Your task to perform on an android device: Empty the shopping cart on newegg. Add duracell triple a to the cart on newegg Image 0: 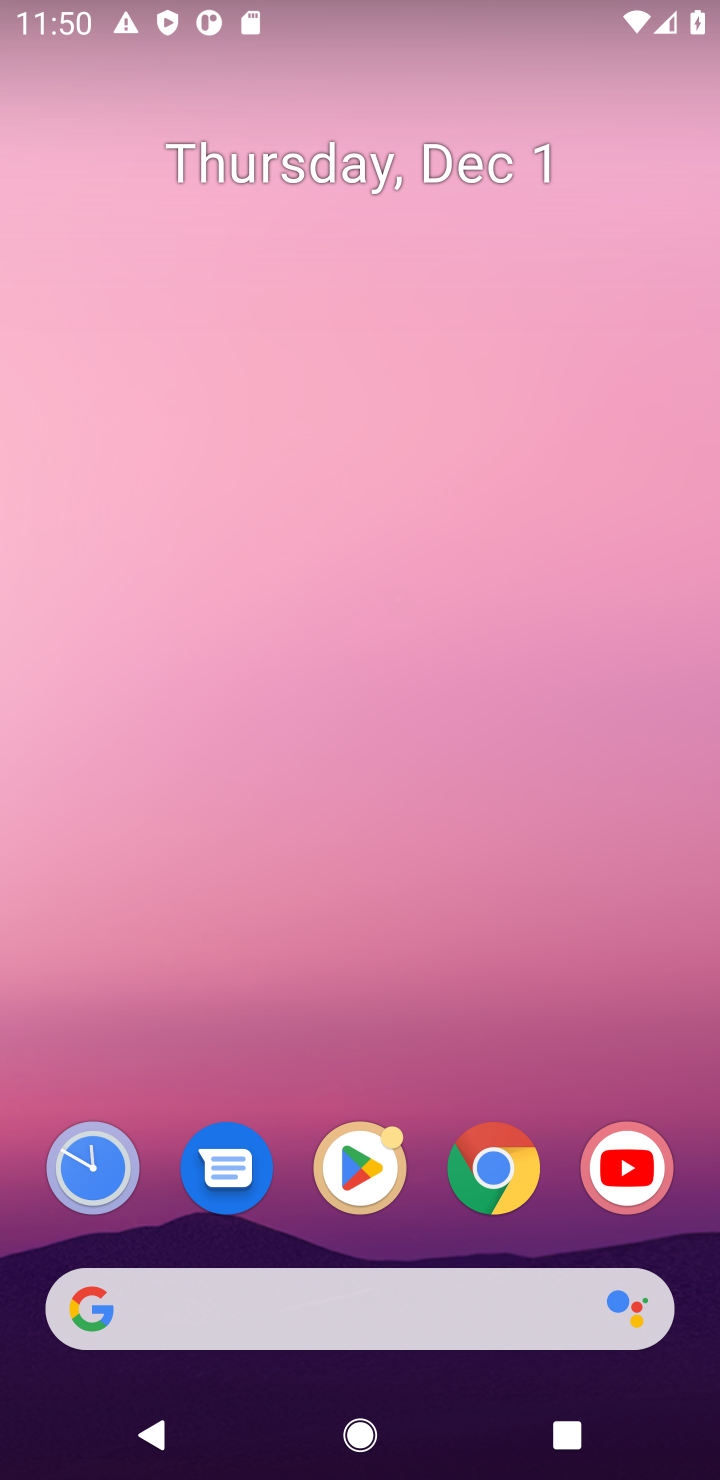
Step 0: click (500, 1181)
Your task to perform on an android device: Empty the shopping cart on newegg. Add duracell triple a to the cart on newegg Image 1: 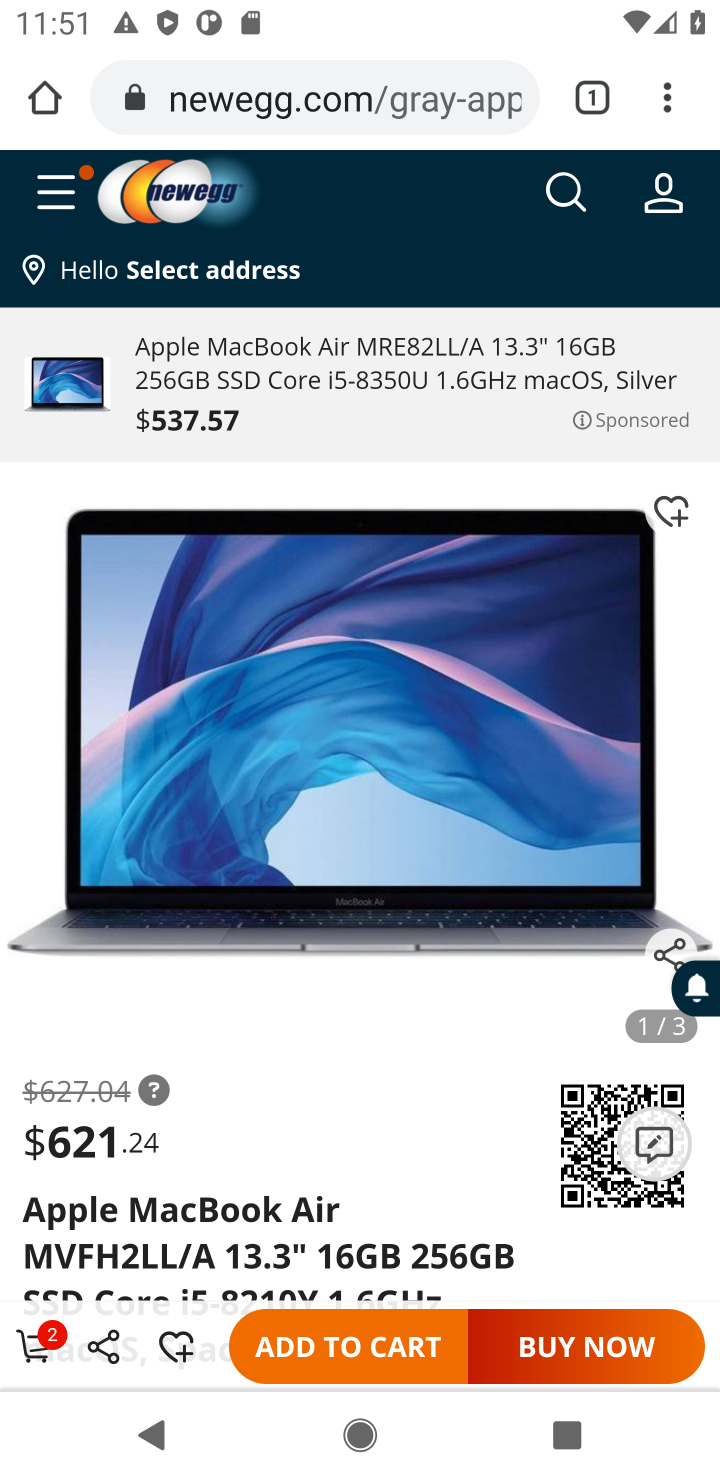
Step 1: click (306, 91)
Your task to perform on an android device: Empty the shopping cart on newegg. Add duracell triple a to the cart on newegg Image 2: 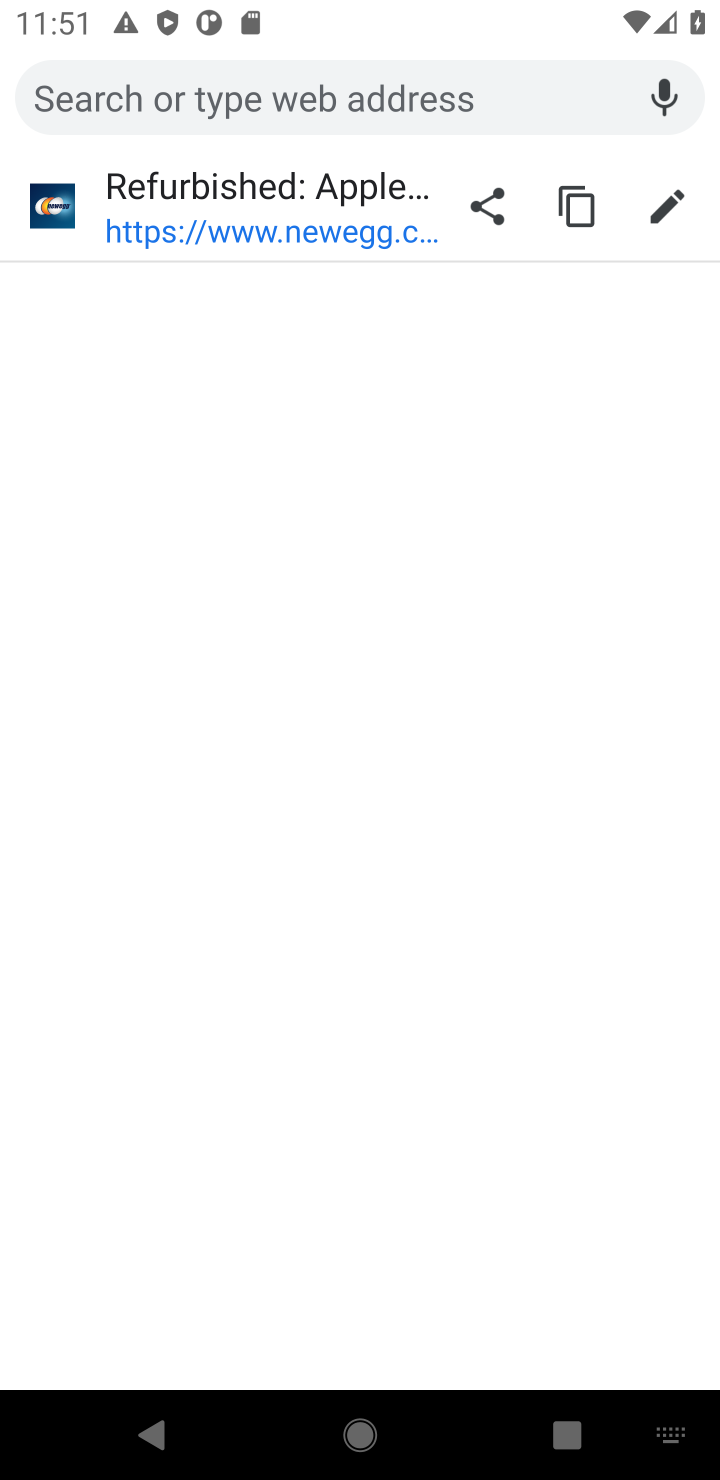
Step 2: click (234, 196)
Your task to perform on an android device: Empty the shopping cart on newegg. Add duracell triple a to the cart on newegg Image 3: 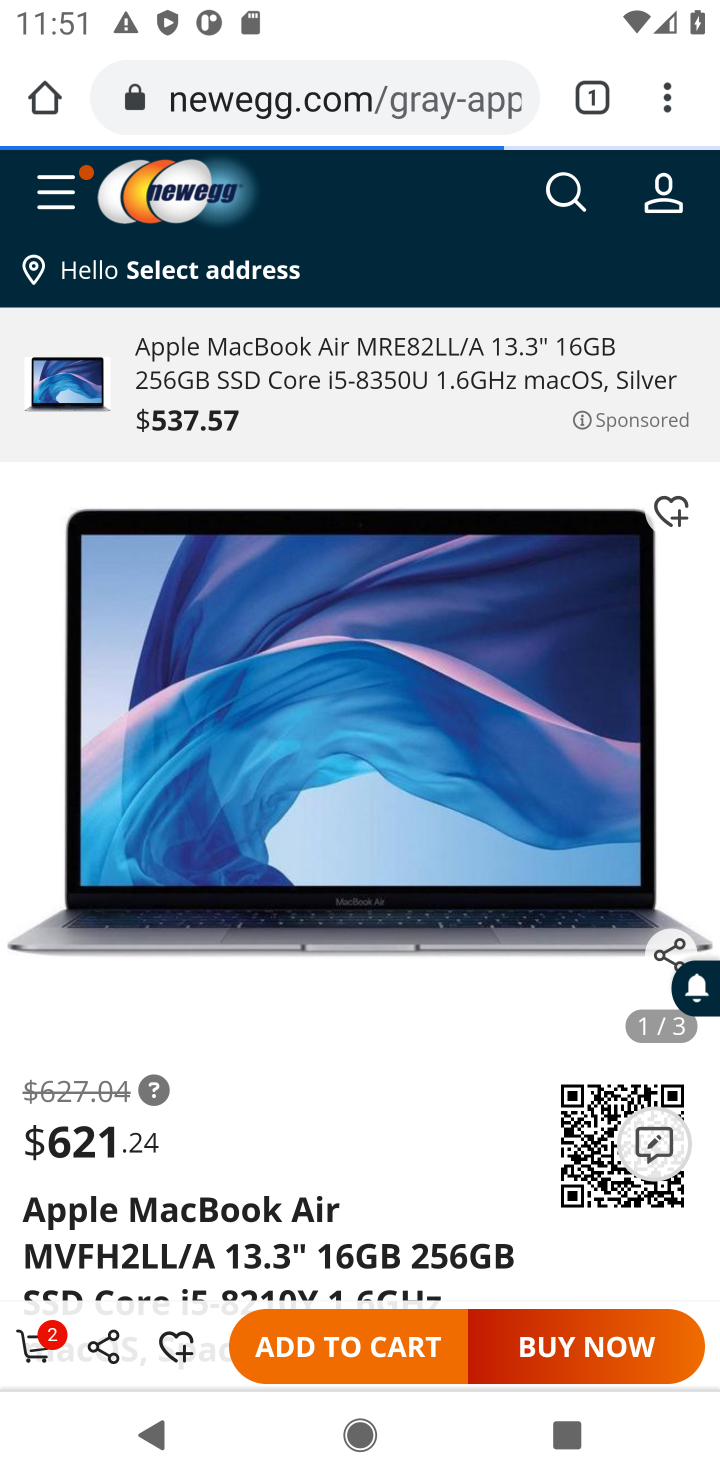
Step 3: click (566, 198)
Your task to perform on an android device: Empty the shopping cart on newegg. Add duracell triple a to the cart on newegg Image 4: 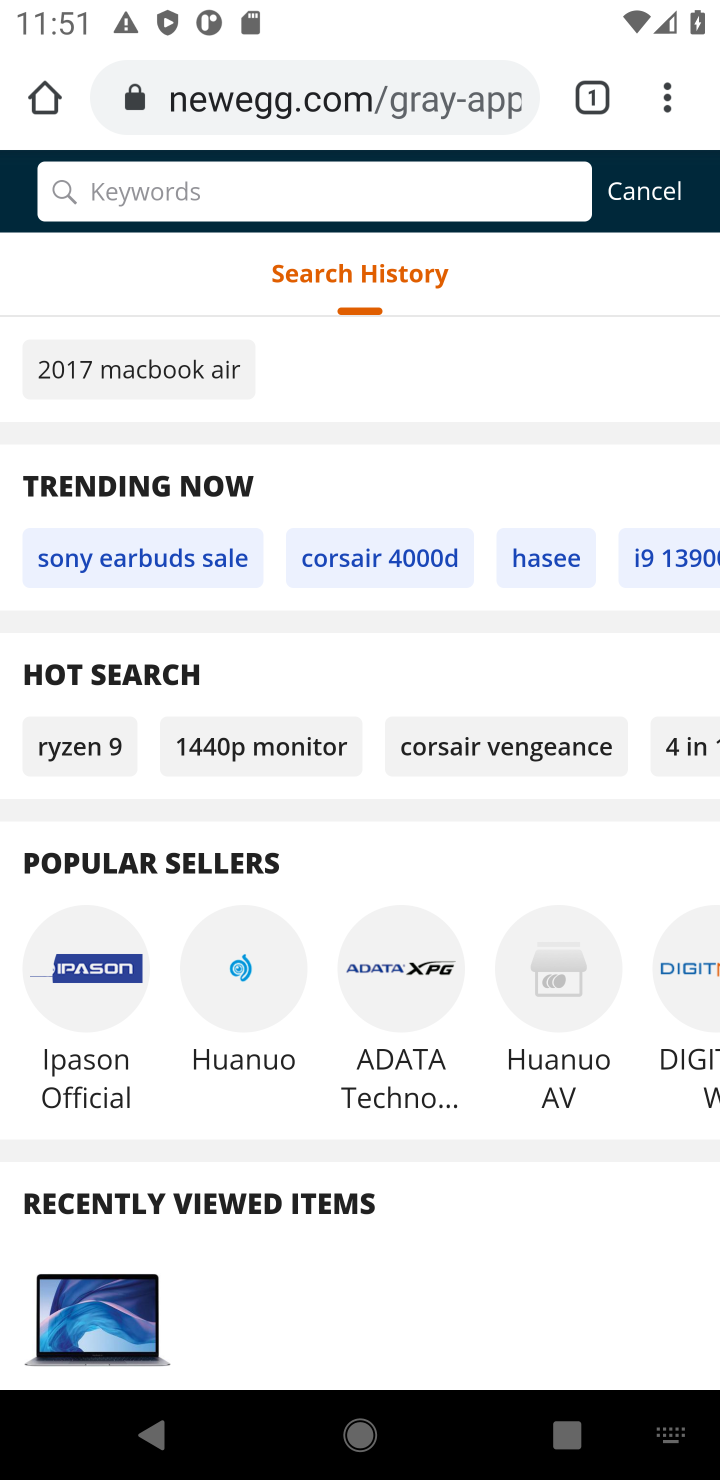
Step 4: type "duracell triple a "
Your task to perform on an android device: Empty the shopping cart on newegg. Add duracell triple a to the cart on newegg Image 5: 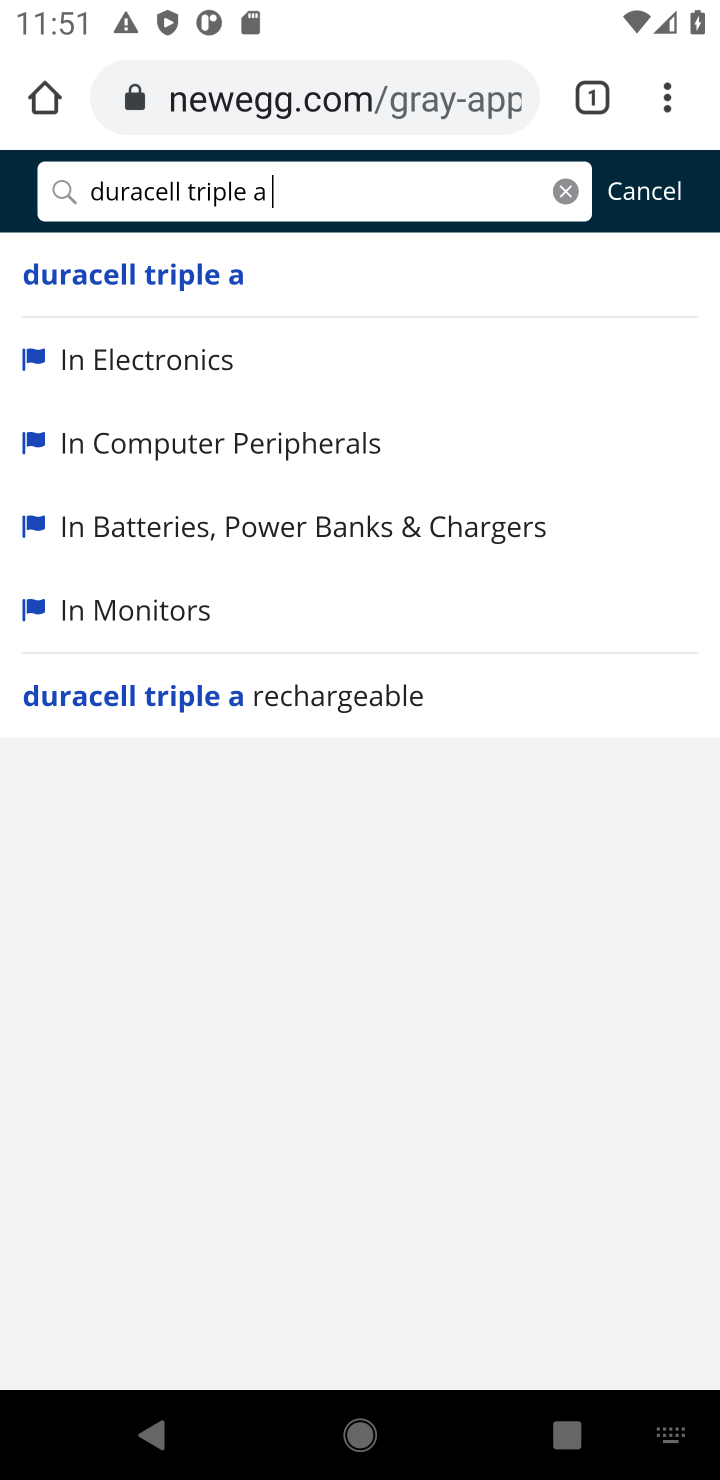
Step 5: click (222, 285)
Your task to perform on an android device: Empty the shopping cart on newegg. Add duracell triple a to the cart on newegg Image 6: 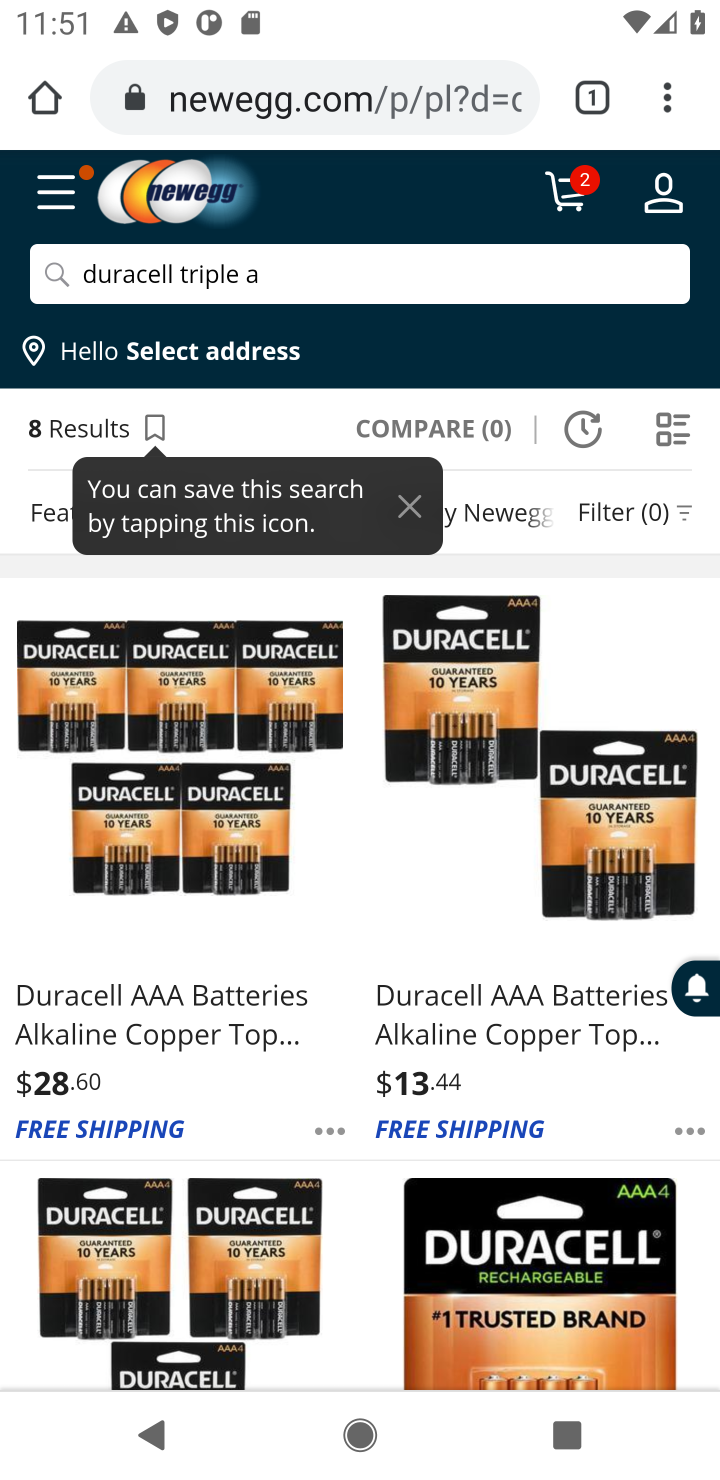
Step 6: click (181, 717)
Your task to perform on an android device: Empty the shopping cart on newegg. Add duracell triple a to the cart on newegg Image 7: 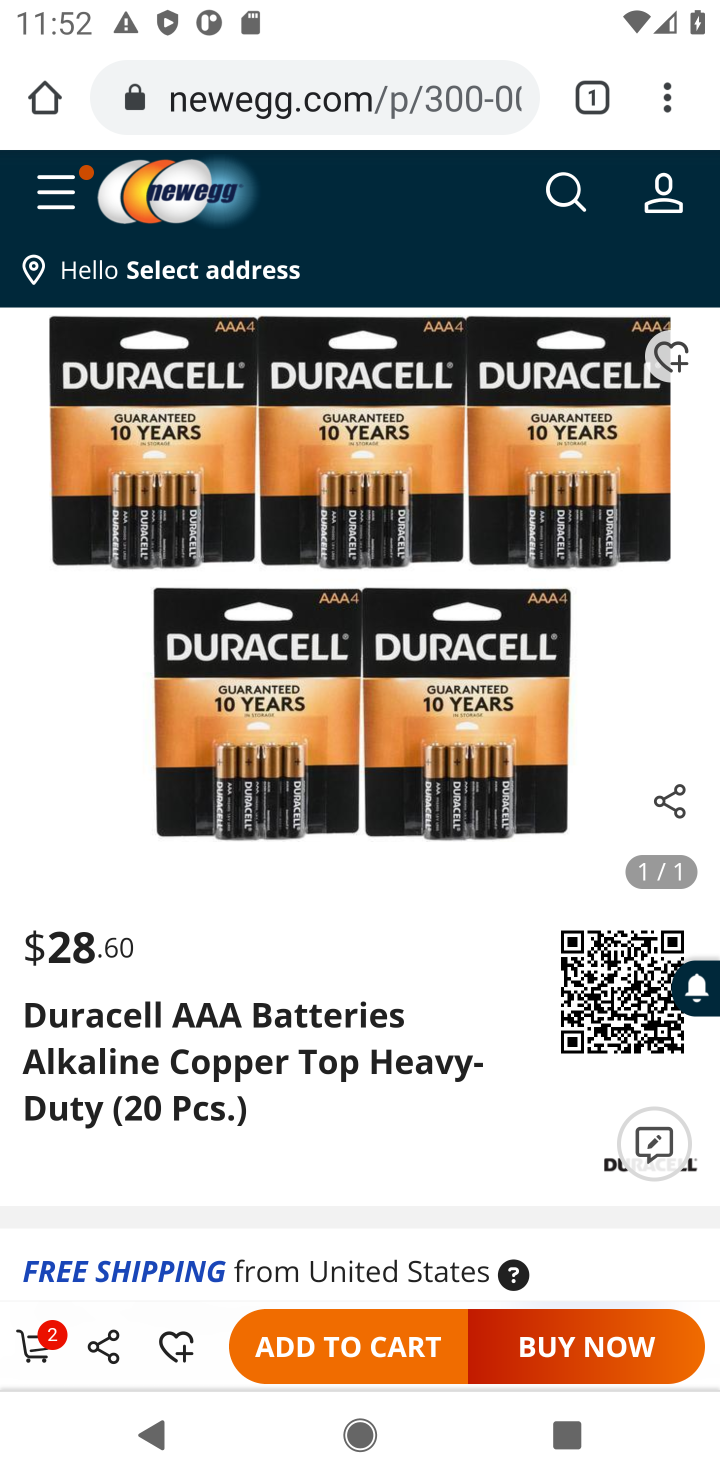
Step 7: click (382, 1359)
Your task to perform on an android device: Empty the shopping cart on newegg. Add duracell triple a to the cart on newegg Image 8: 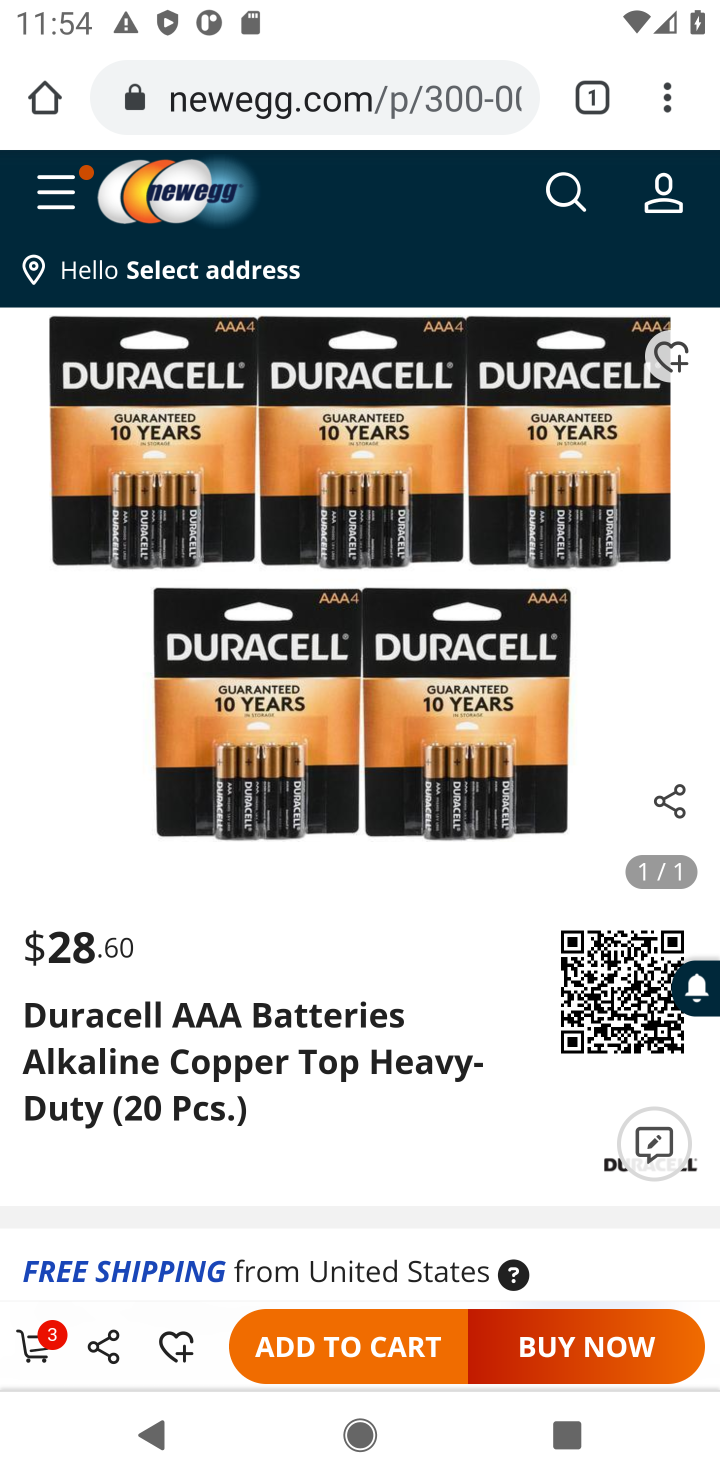
Step 8: task complete